Your task to perform on an android device: When is my next meeting? Image 0: 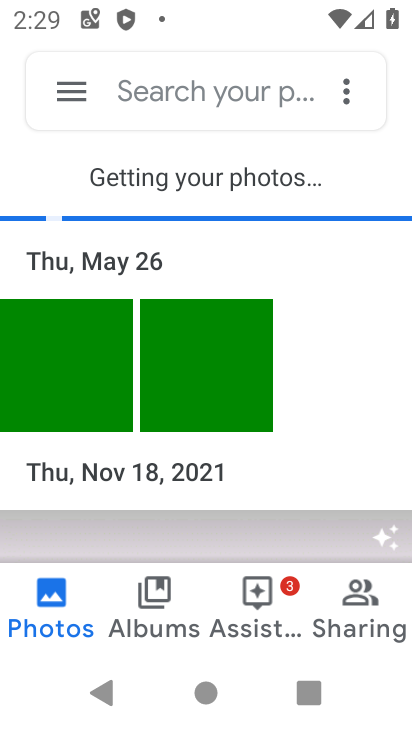
Step 0: press back button
Your task to perform on an android device: When is my next meeting? Image 1: 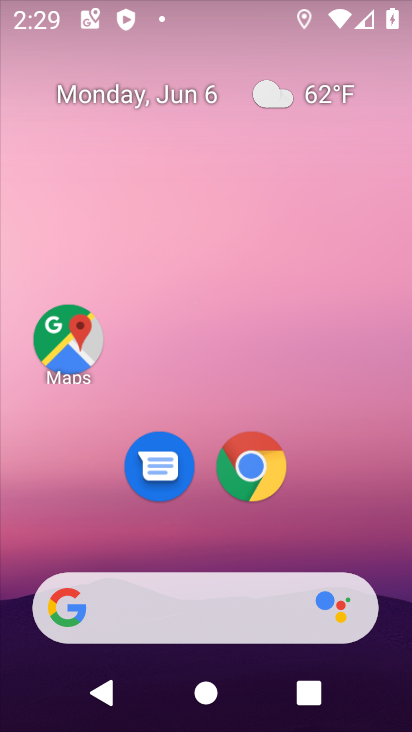
Step 1: press home button
Your task to perform on an android device: When is my next meeting? Image 2: 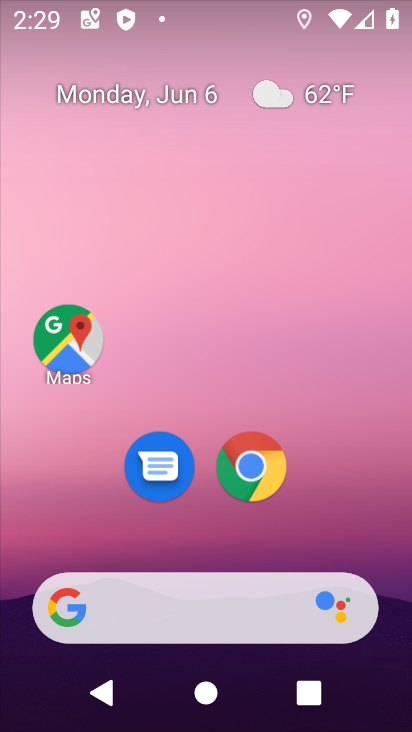
Step 2: drag from (258, 695) to (200, 334)
Your task to perform on an android device: When is my next meeting? Image 3: 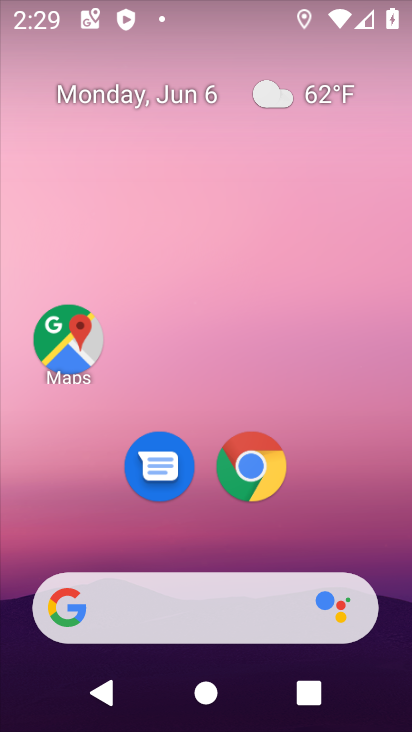
Step 3: drag from (249, 680) to (220, 433)
Your task to perform on an android device: When is my next meeting? Image 4: 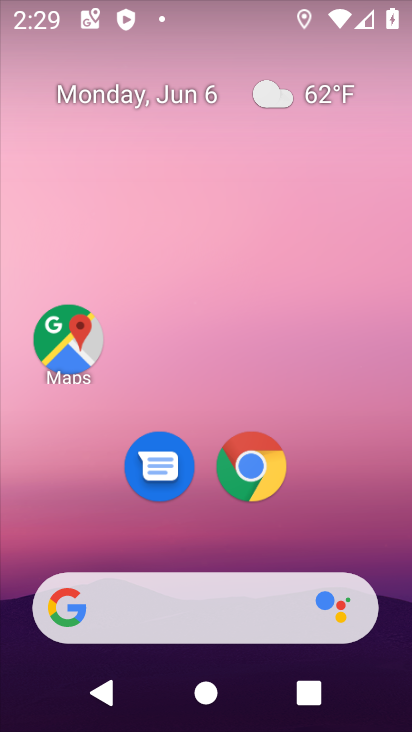
Step 4: drag from (234, 647) to (209, 470)
Your task to perform on an android device: When is my next meeting? Image 5: 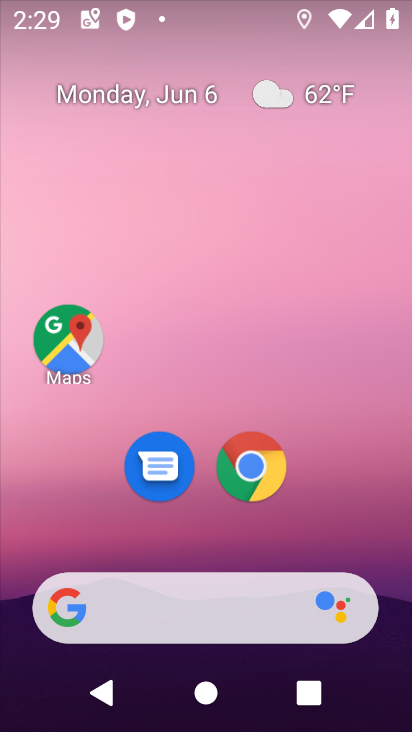
Step 5: drag from (230, 598) to (171, 179)
Your task to perform on an android device: When is my next meeting? Image 6: 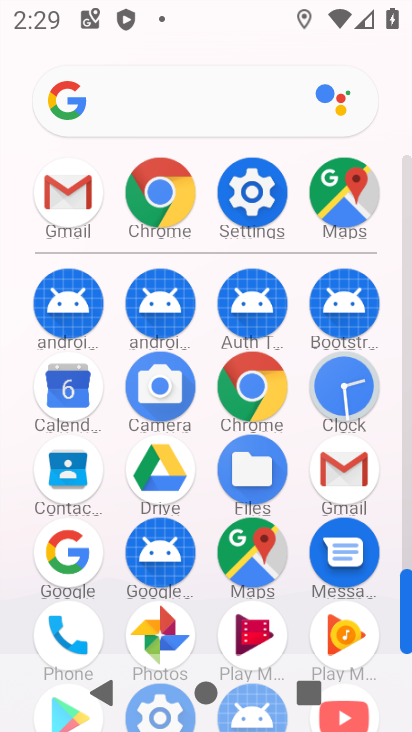
Step 6: click (66, 380)
Your task to perform on an android device: When is my next meeting? Image 7: 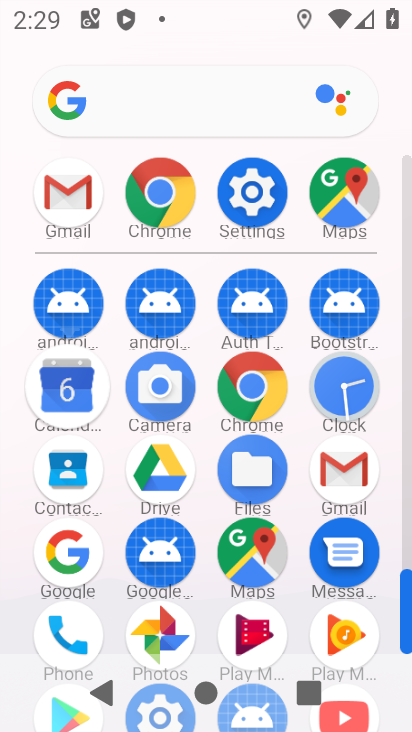
Step 7: click (64, 382)
Your task to perform on an android device: When is my next meeting? Image 8: 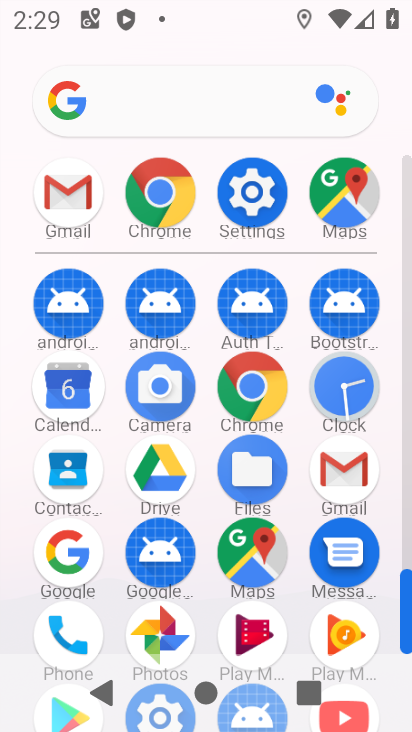
Step 8: click (61, 387)
Your task to perform on an android device: When is my next meeting? Image 9: 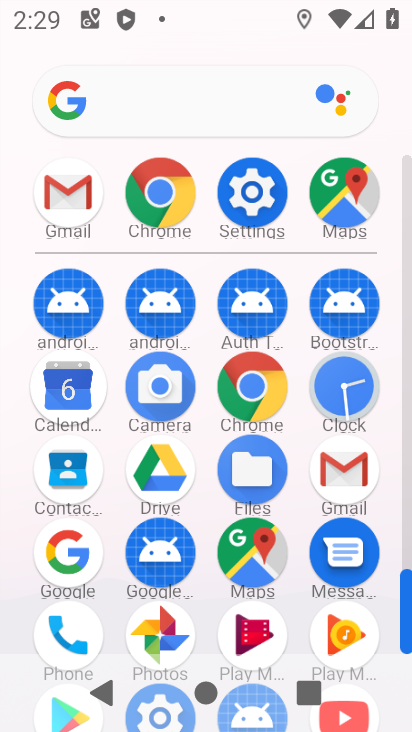
Step 9: click (61, 387)
Your task to perform on an android device: When is my next meeting? Image 10: 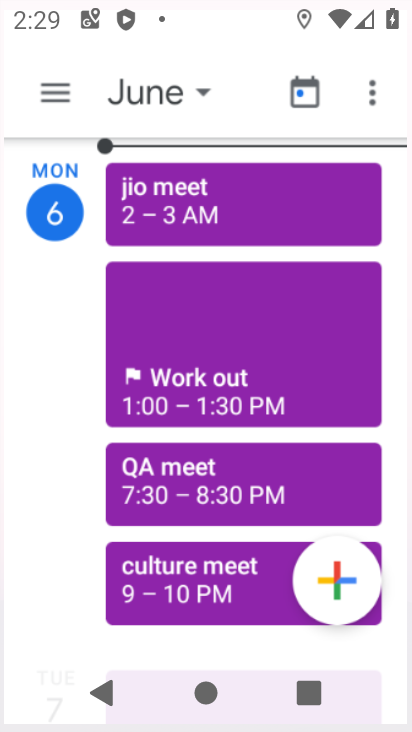
Step 10: click (61, 387)
Your task to perform on an android device: When is my next meeting? Image 11: 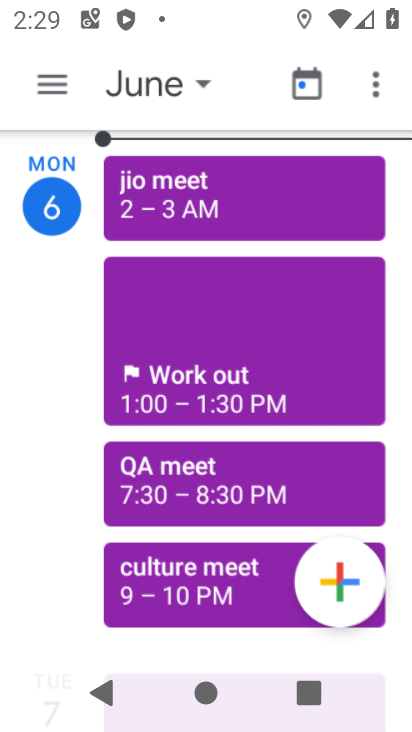
Step 11: click (56, 394)
Your task to perform on an android device: When is my next meeting? Image 12: 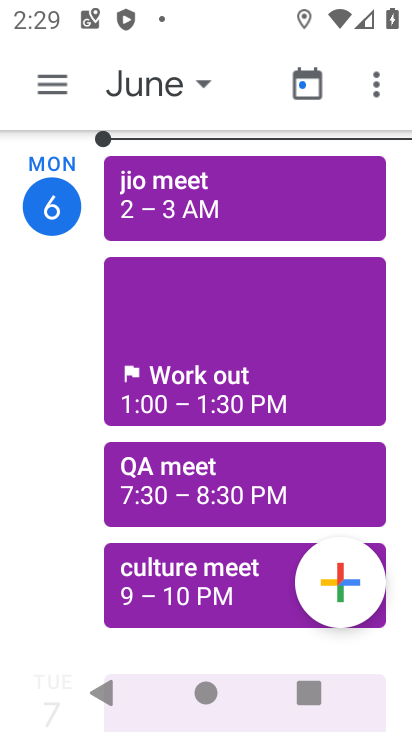
Step 12: task complete